Your task to perform on an android device: Open Yahoo.com Image 0: 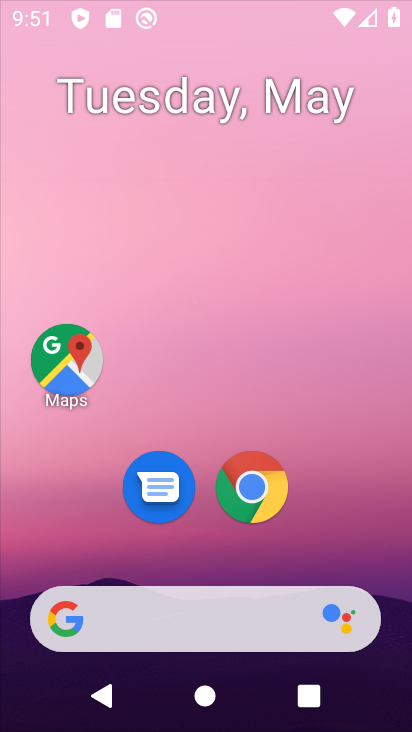
Step 0: click (296, 88)
Your task to perform on an android device: Open Yahoo.com Image 1: 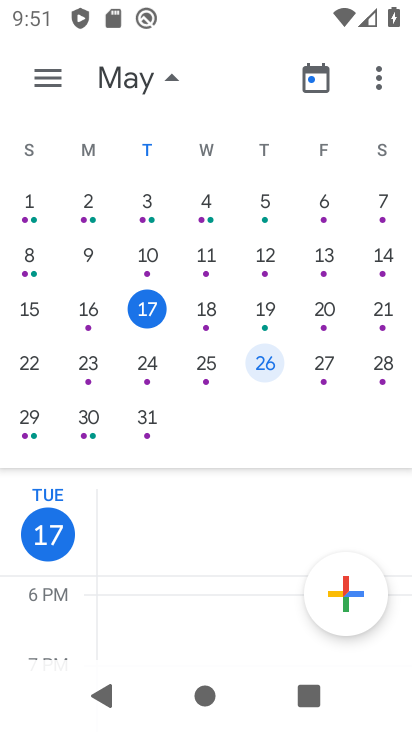
Step 1: drag from (225, 553) to (229, 113)
Your task to perform on an android device: Open Yahoo.com Image 2: 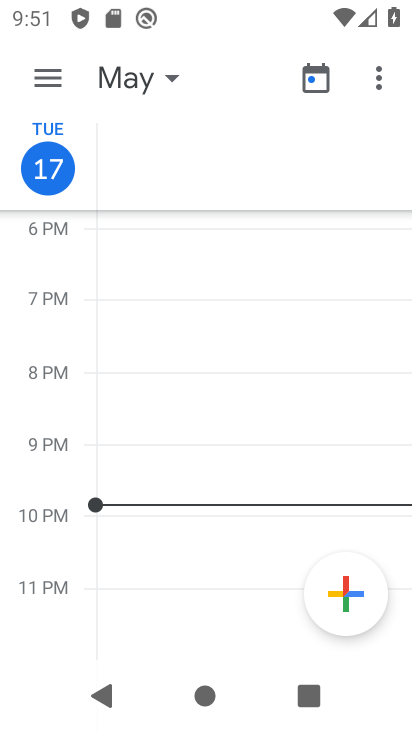
Step 2: press home button
Your task to perform on an android device: Open Yahoo.com Image 3: 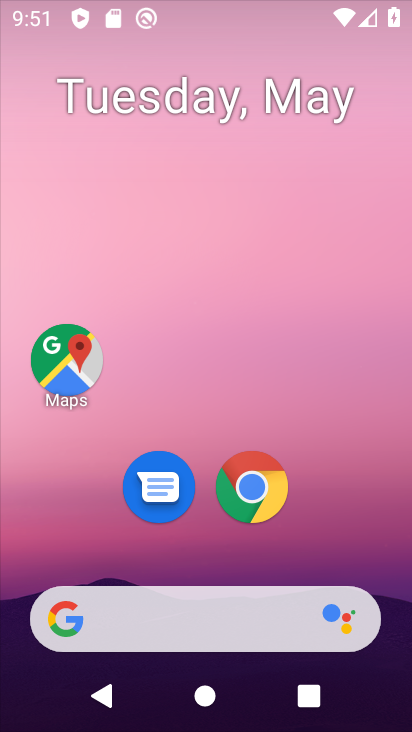
Step 3: drag from (209, 308) to (239, 114)
Your task to perform on an android device: Open Yahoo.com Image 4: 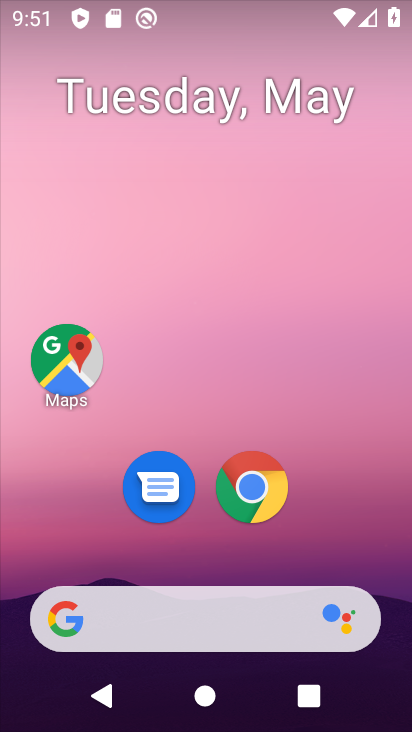
Step 4: click (223, 619)
Your task to perform on an android device: Open Yahoo.com Image 5: 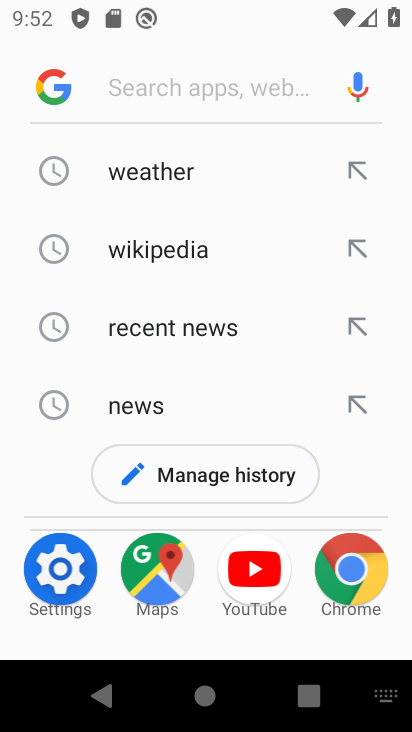
Step 5: type "yahoo"
Your task to perform on an android device: Open Yahoo.com Image 6: 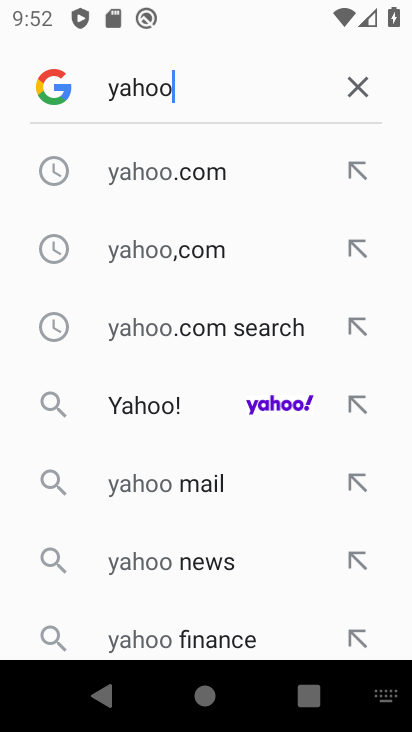
Step 6: click (202, 165)
Your task to perform on an android device: Open Yahoo.com Image 7: 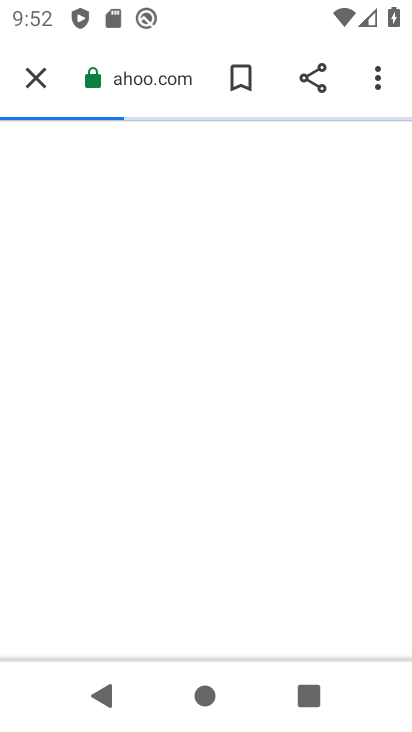
Step 7: task complete